Your task to perform on an android device: change keyboard looks Image 0: 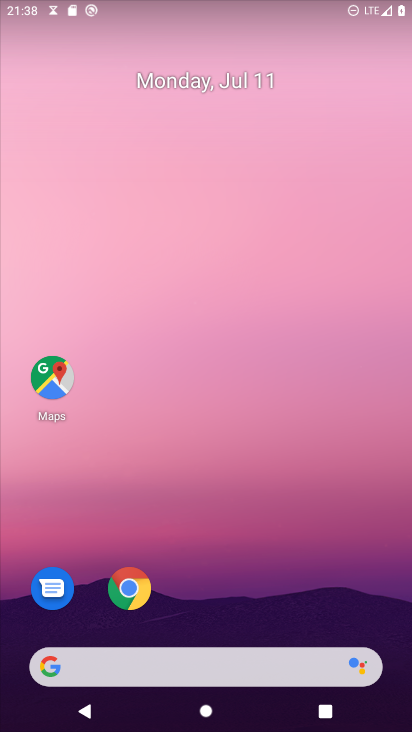
Step 0: press home button
Your task to perform on an android device: change keyboard looks Image 1: 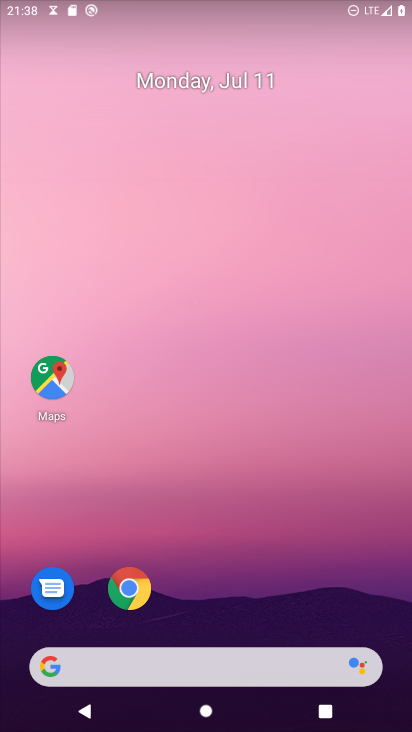
Step 1: drag from (295, 588) to (272, 38)
Your task to perform on an android device: change keyboard looks Image 2: 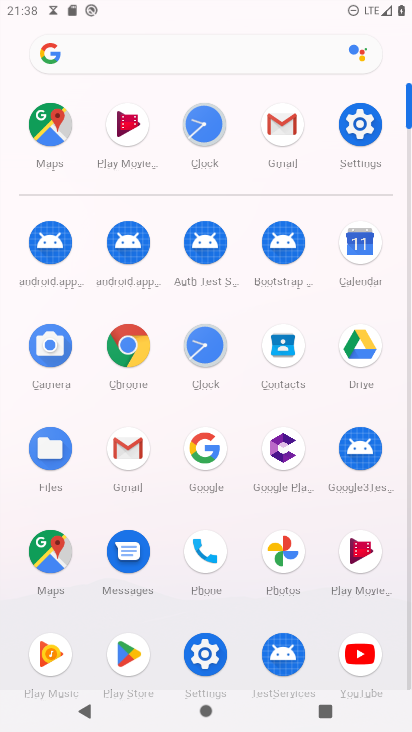
Step 2: click (359, 132)
Your task to perform on an android device: change keyboard looks Image 3: 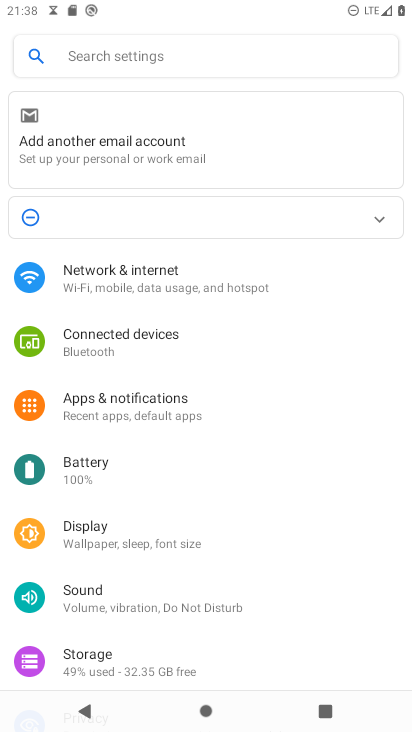
Step 3: drag from (354, 558) to (357, 50)
Your task to perform on an android device: change keyboard looks Image 4: 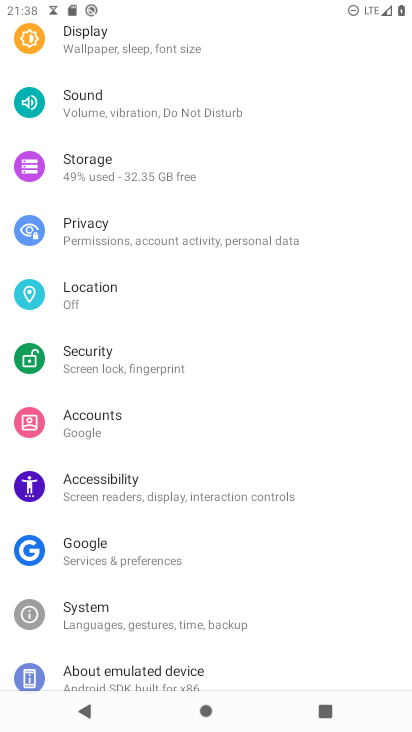
Step 4: click (128, 618)
Your task to perform on an android device: change keyboard looks Image 5: 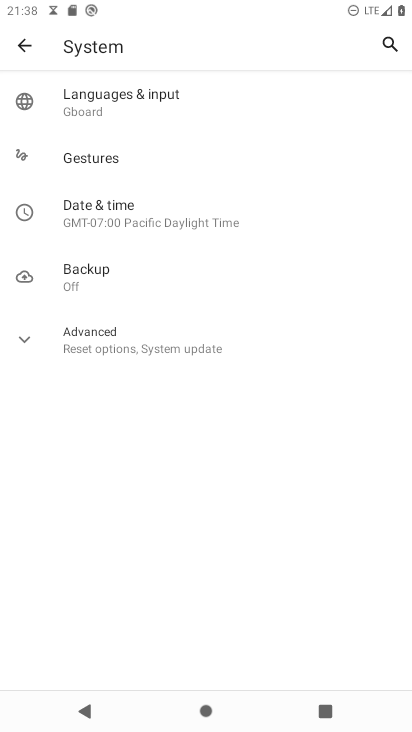
Step 5: click (89, 103)
Your task to perform on an android device: change keyboard looks Image 6: 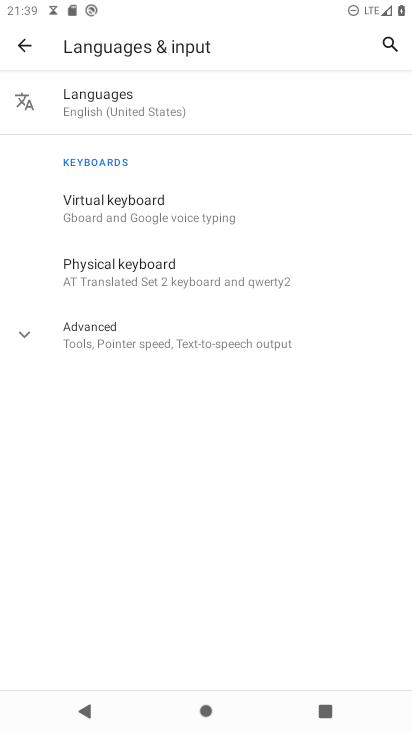
Step 6: click (105, 210)
Your task to perform on an android device: change keyboard looks Image 7: 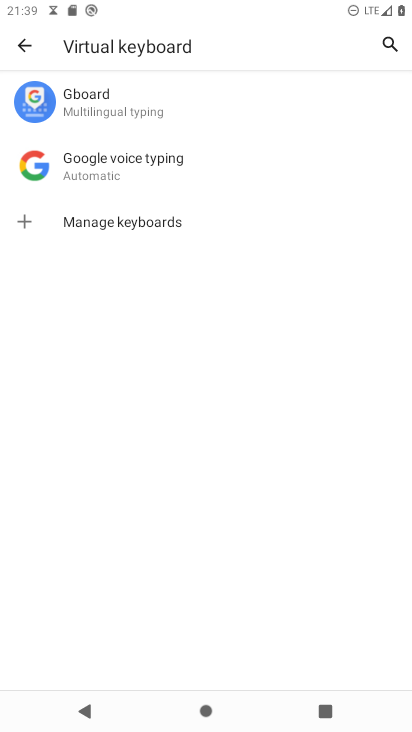
Step 7: click (88, 103)
Your task to perform on an android device: change keyboard looks Image 8: 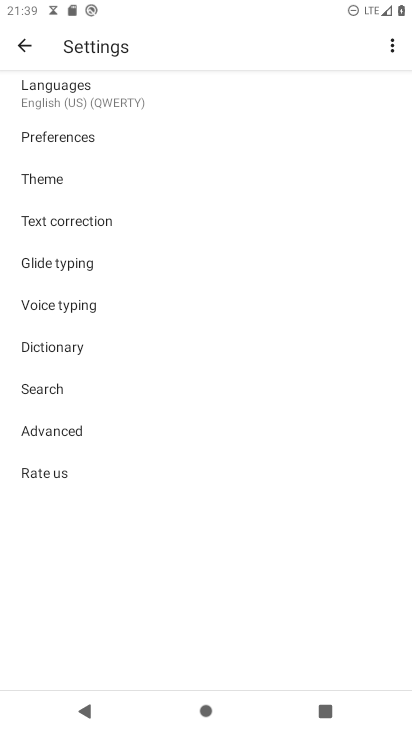
Step 8: click (49, 179)
Your task to perform on an android device: change keyboard looks Image 9: 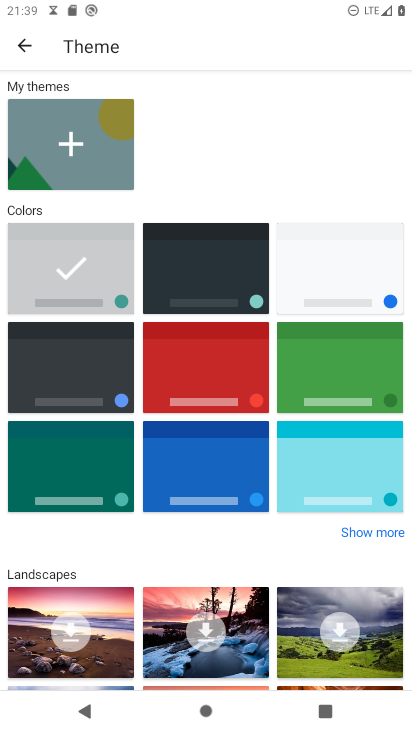
Step 9: click (202, 364)
Your task to perform on an android device: change keyboard looks Image 10: 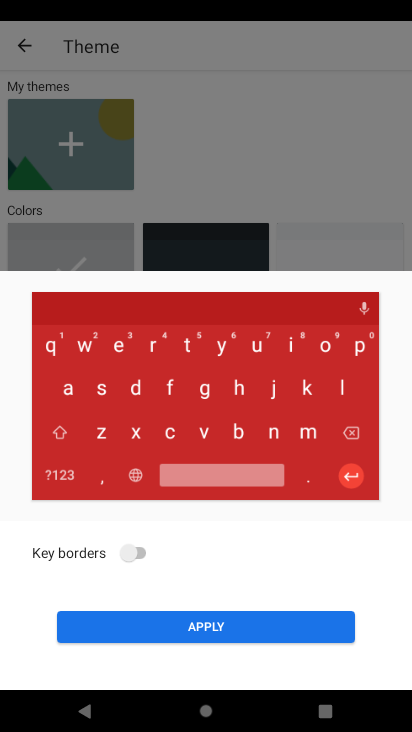
Step 10: click (106, 632)
Your task to perform on an android device: change keyboard looks Image 11: 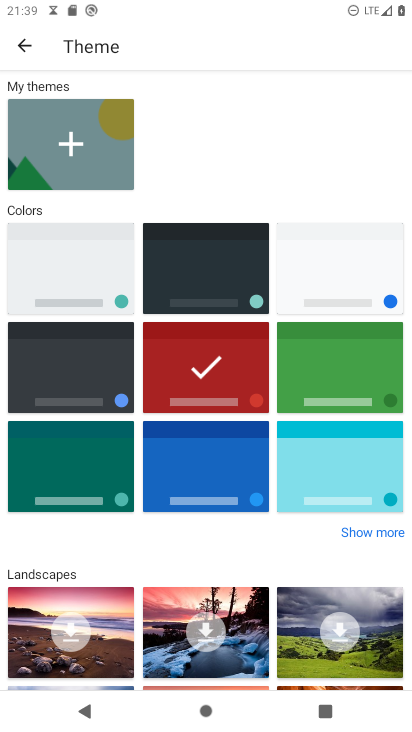
Step 11: task complete